Your task to perform on an android device: Open the phone app and click the voicemail tab. Image 0: 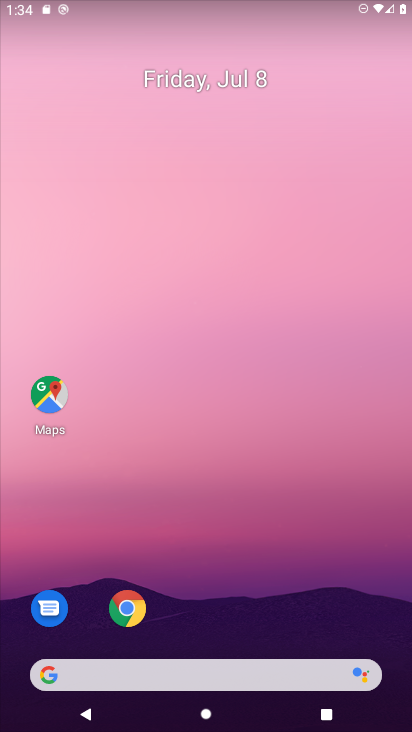
Step 0: drag from (273, 609) to (220, 269)
Your task to perform on an android device: Open the phone app and click the voicemail tab. Image 1: 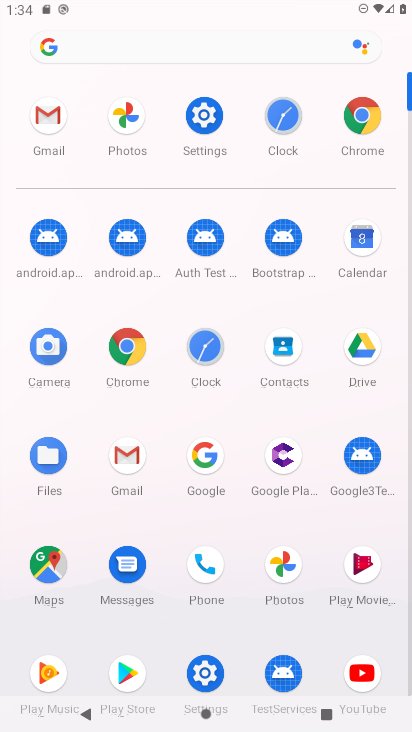
Step 1: click (214, 586)
Your task to perform on an android device: Open the phone app and click the voicemail tab. Image 2: 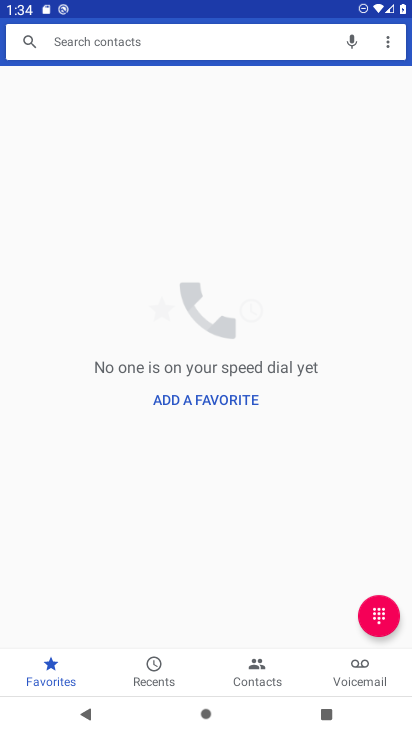
Step 2: click (369, 675)
Your task to perform on an android device: Open the phone app and click the voicemail tab. Image 3: 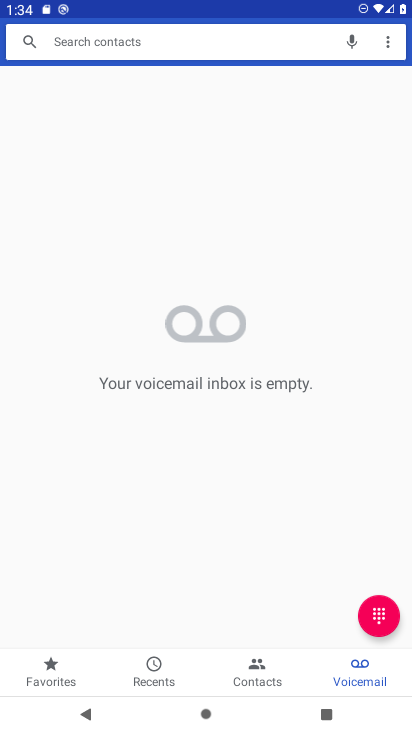
Step 3: task complete